Your task to perform on an android device: What's the weather? Image 0: 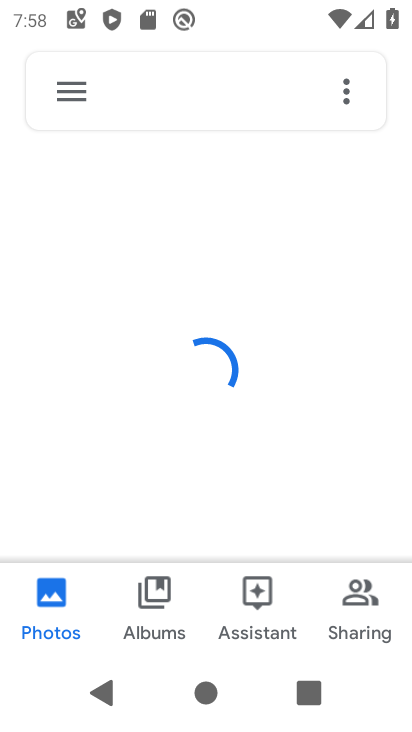
Step 0: press home button
Your task to perform on an android device: What's the weather? Image 1: 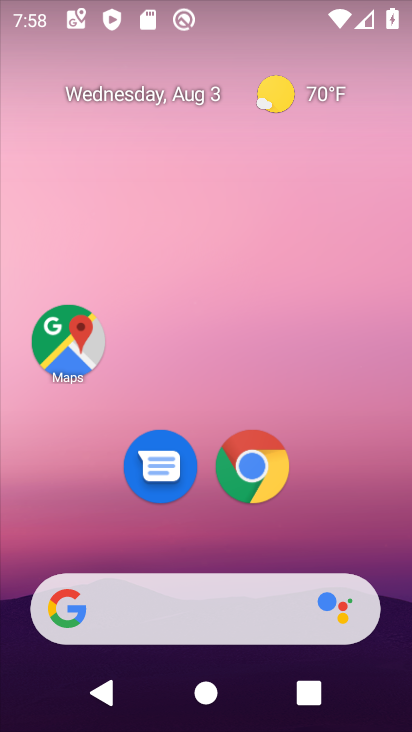
Step 1: click (328, 92)
Your task to perform on an android device: What's the weather? Image 2: 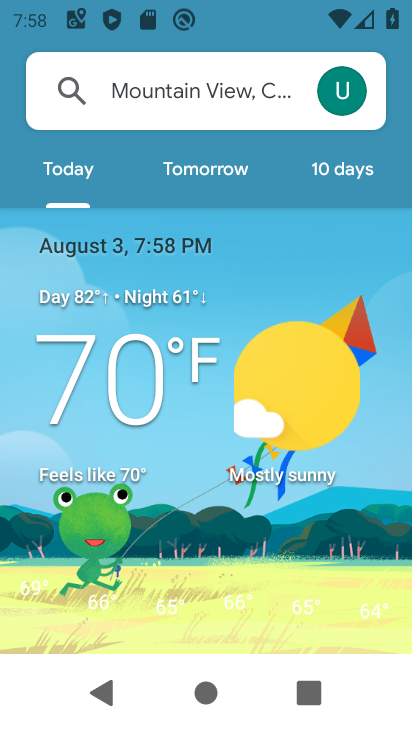
Step 2: task complete